Your task to perform on an android device: search for starred emails in the gmail app Image 0: 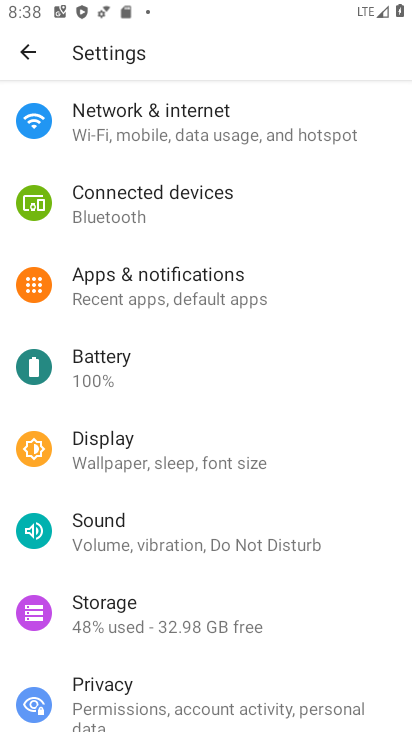
Step 0: press home button
Your task to perform on an android device: search for starred emails in the gmail app Image 1: 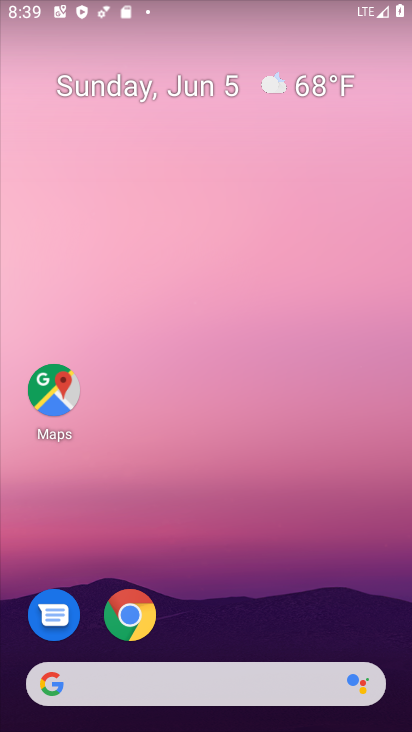
Step 1: drag from (212, 668) to (166, 412)
Your task to perform on an android device: search for starred emails in the gmail app Image 2: 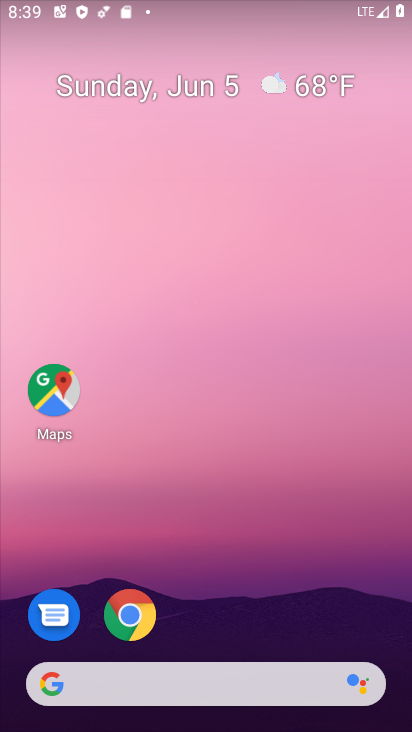
Step 2: drag from (212, 673) to (222, 258)
Your task to perform on an android device: search for starred emails in the gmail app Image 3: 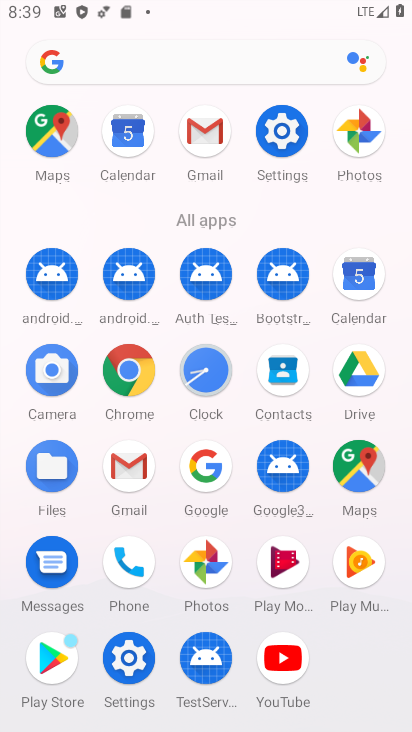
Step 3: click (139, 484)
Your task to perform on an android device: search for starred emails in the gmail app Image 4: 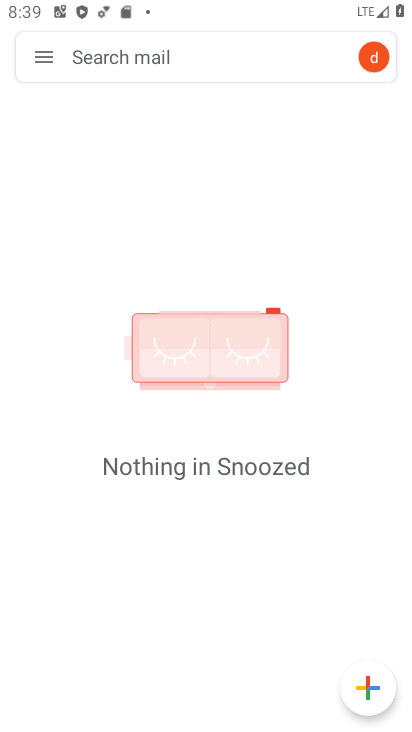
Step 4: click (40, 57)
Your task to perform on an android device: search for starred emails in the gmail app Image 5: 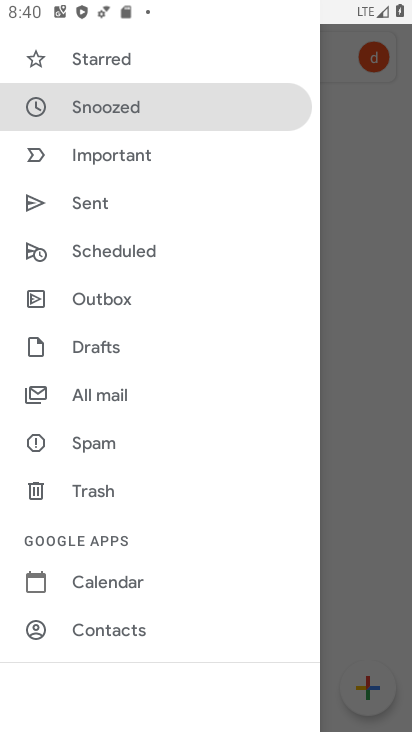
Step 5: click (85, 62)
Your task to perform on an android device: search for starred emails in the gmail app Image 6: 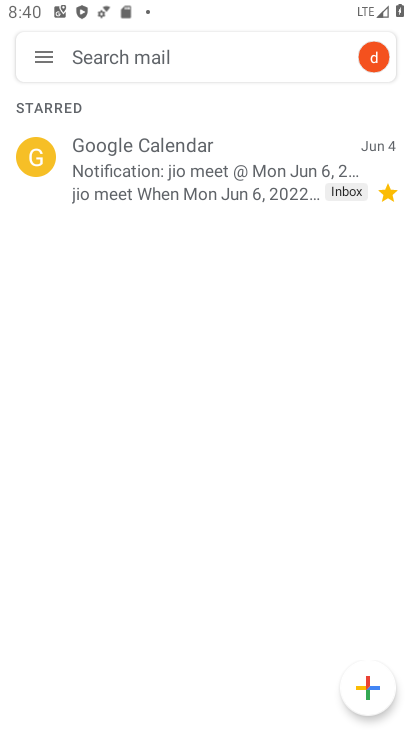
Step 6: task complete